Your task to perform on an android device: change the upload size in google photos Image 0: 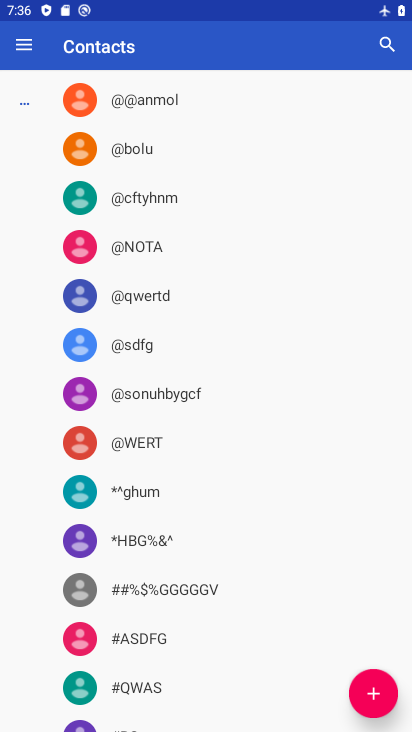
Step 0: press home button
Your task to perform on an android device: change the upload size in google photos Image 1: 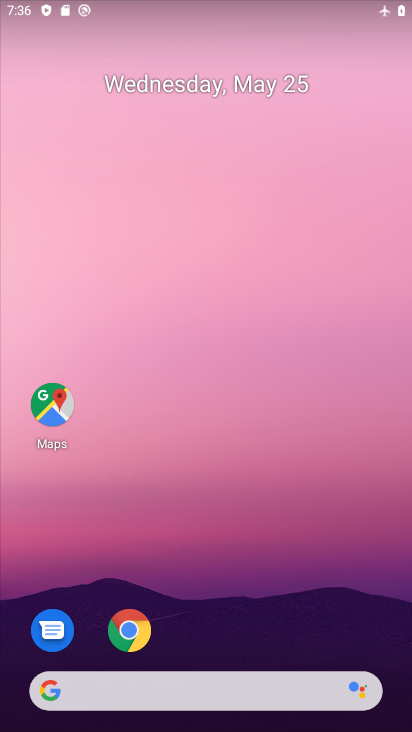
Step 1: drag from (196, 699) to (228, 241)
Your task to perform on an android device: change the upload size in google photos Image 2: 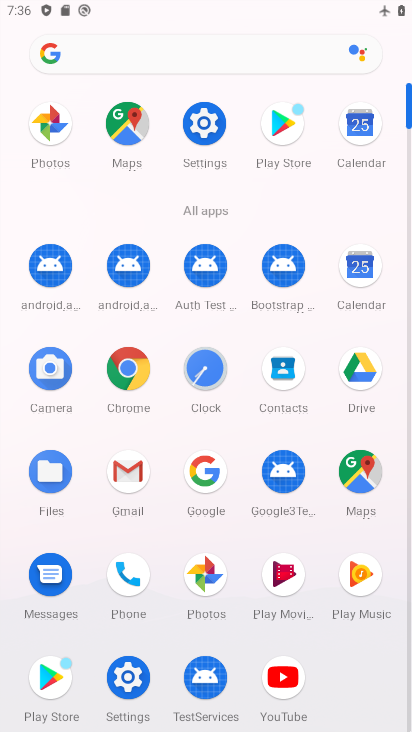
Step 2: click (211, 593)
Your task to perform on an android device: change the upload size in google photos Image 3: 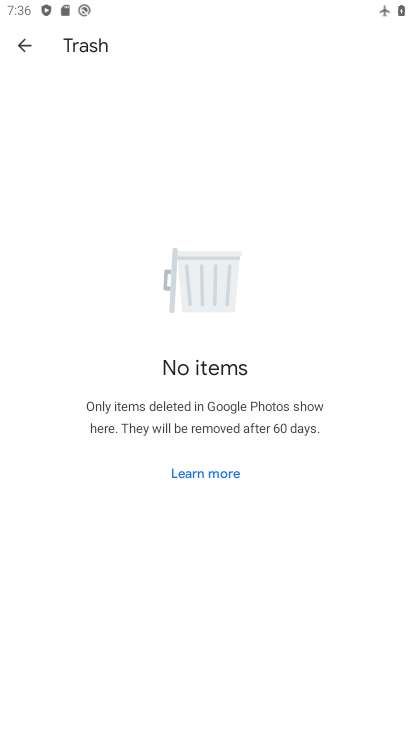
Step 3: click (23, 39)
Your task to perform on an android device: change the upload size in google photos Image 4: 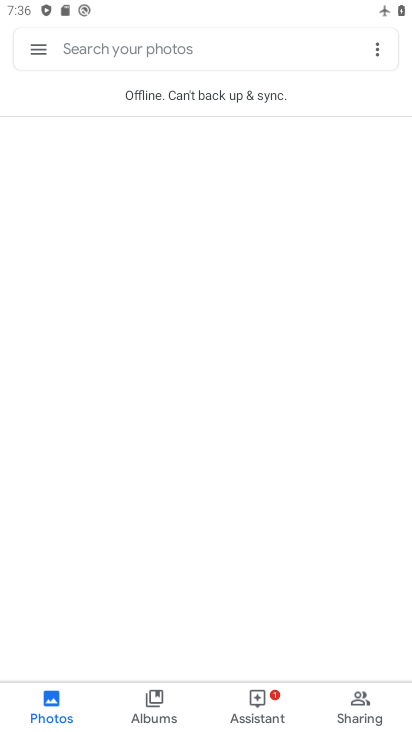
Step 4: click (33, 51)
Your task to perform on an android device: change the upload size in google photos Image 5: 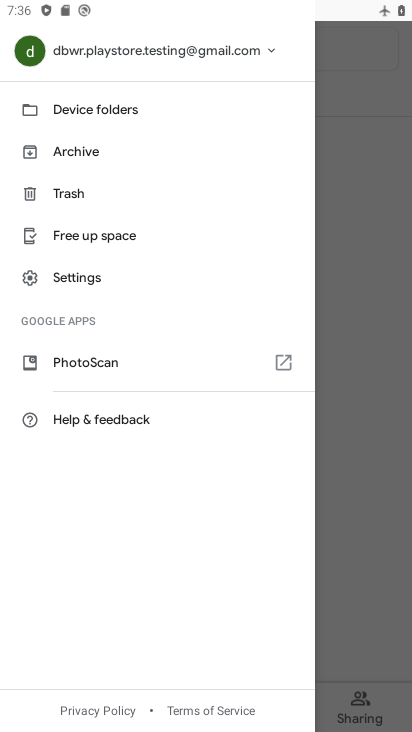
Step 5: click (78, 278)
Your task to perform on an android device: change the upload size in google photos Image 6: 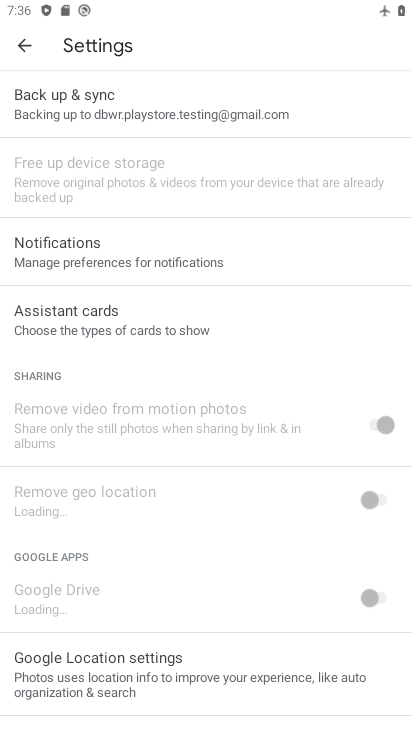
Step 6: click (89, 101)
Your task to perform on an android device: change the upload size in google photos Image 7: 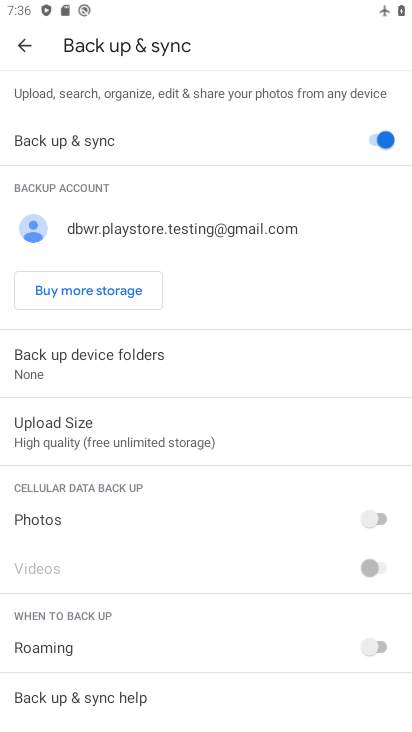
Step 7: click (48, 434)
Your task to perform on an android device: change the upload size in google photos Image 8: 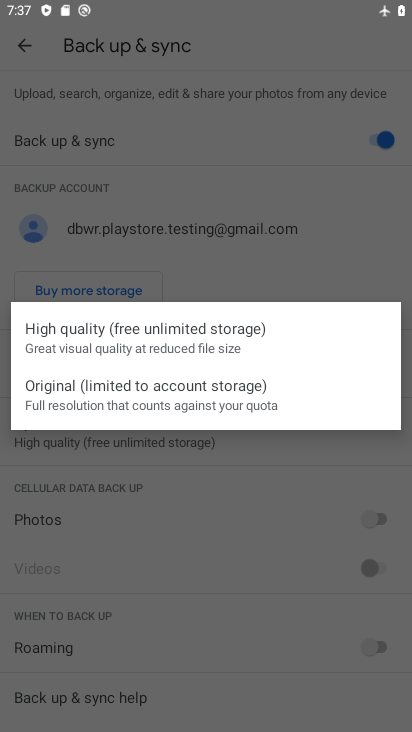
Step 8: click (48, 398)
Your task to perform on an android device: change the upload size in google photos Image 9: 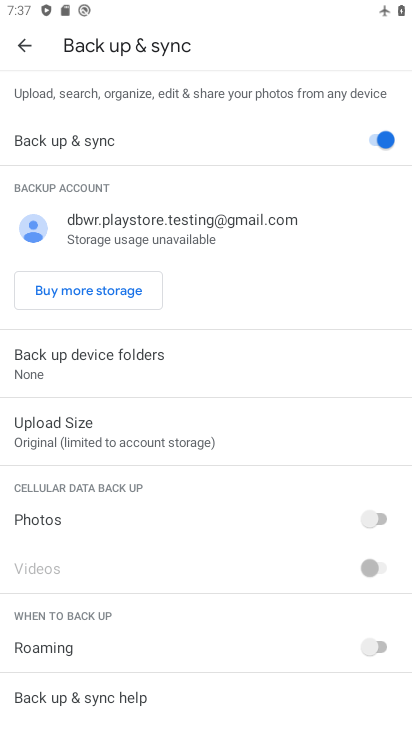
Step 9: task complete